Your task to perform on an android device: all mails in gmail Image 0: 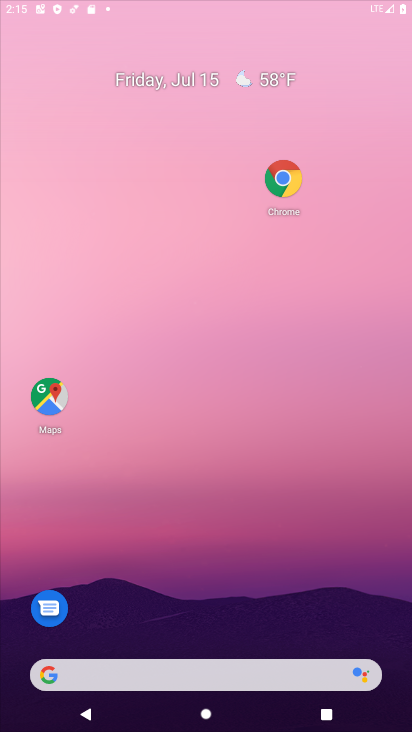
Step 0: press home button
Your task to perform on an android device: all mails in gmail Image 1: 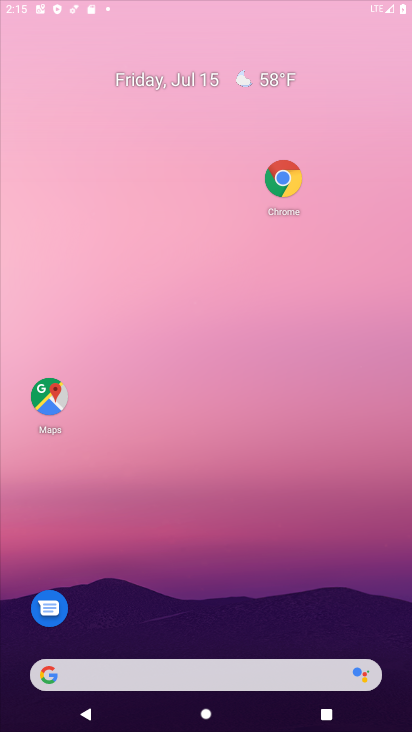
Step 1: click (153, 74)
Your task to perform on an android device: all mails in gmail Image 2: 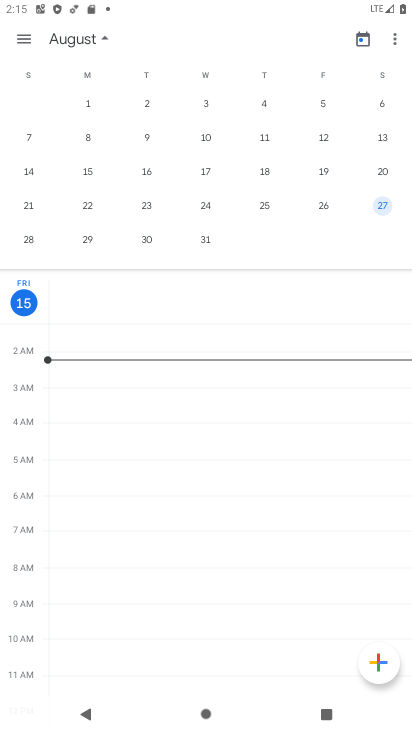
Step 2: drag from (203, 638) to (218, 413)
Your task to perform on an android device: all mails in gmail Image 3: 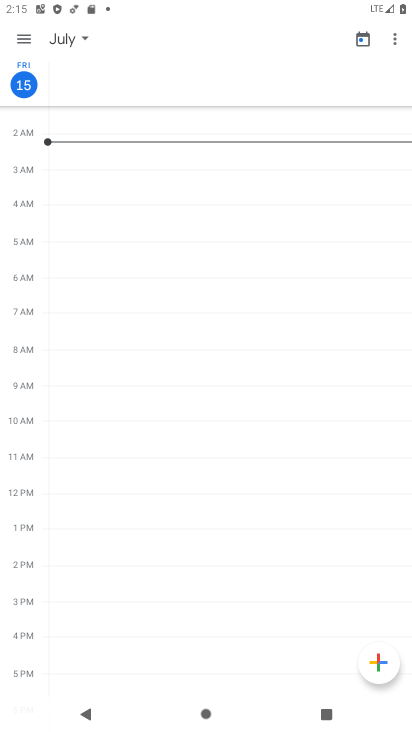
Step 3: press home button
Your task to perform on an android device: all mails in gmail Image 4: 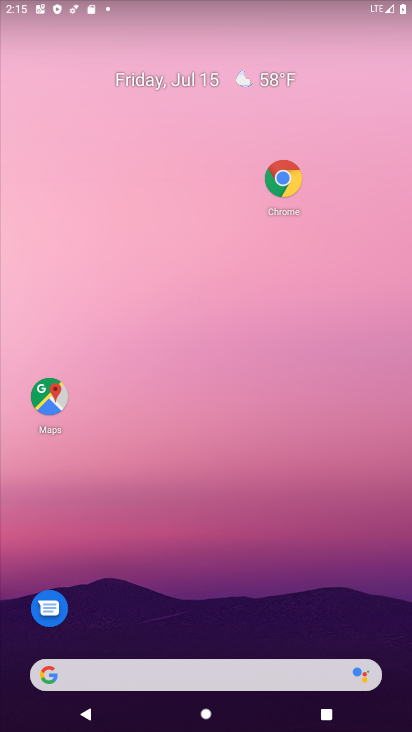
Step 4: drag from (173, 629) to (170, 127)
Your task to perform on an android device: all mails in gmail Image 5: 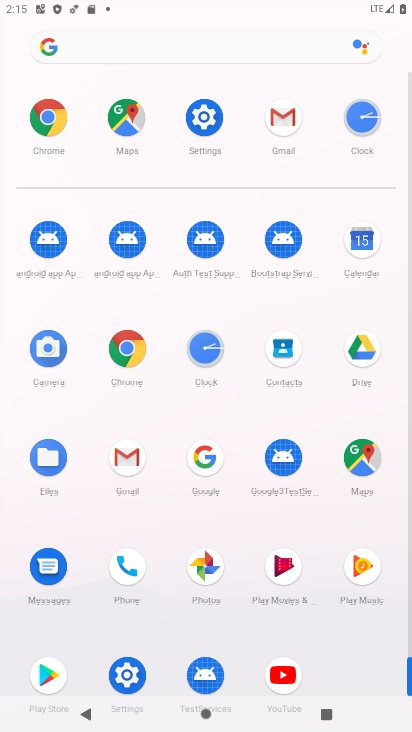
Step 5: click (126, 451)
Your task to perform on an android device: all mails in gmail Image 6: 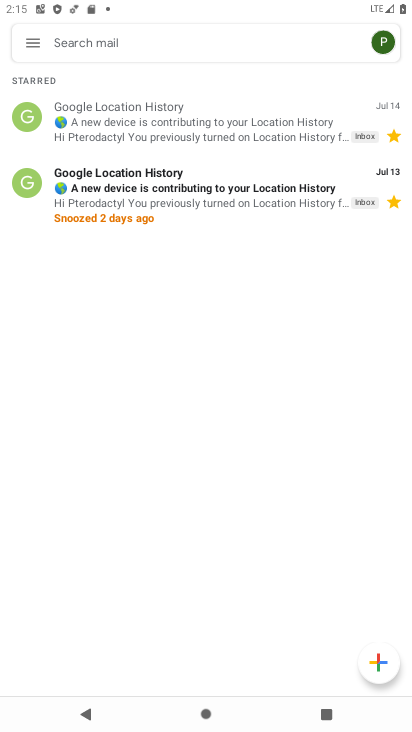
Step 6: click (30, 41)
Your task to perform on an android device: all mails in gmail Image 7: 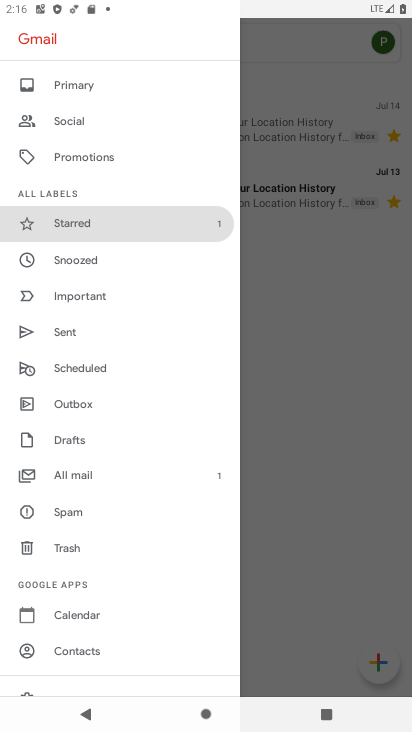
Step 7: click (81, 478)
Your task to perform on an android device: all mails in gmail Image 8: 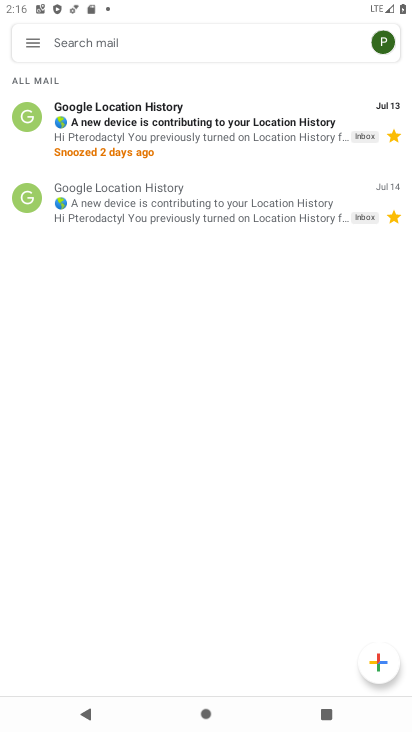
Step 8: task complete